Your task to perform on an android device: Open eBay Image 0: 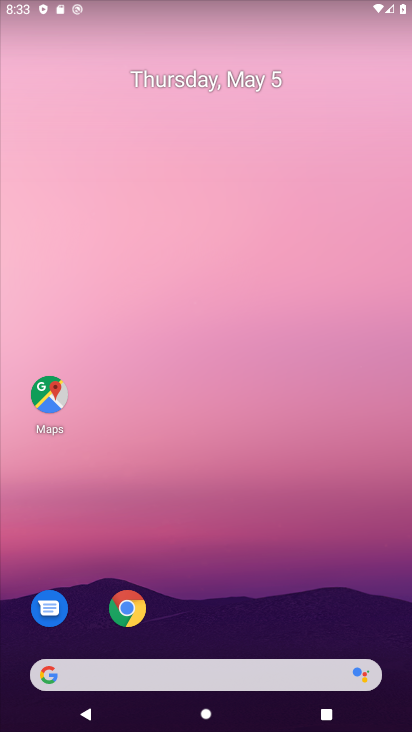
Step 0: drag from (334, 673) to (323, 20)
Your task to perform on an android device: Open eBay Image 1: 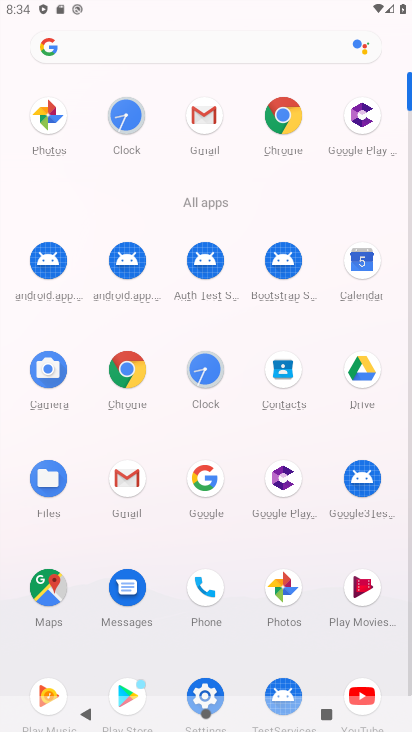
Step 1: click (128, 373)
Your task to perform on an android device: Open eBay Image 2: 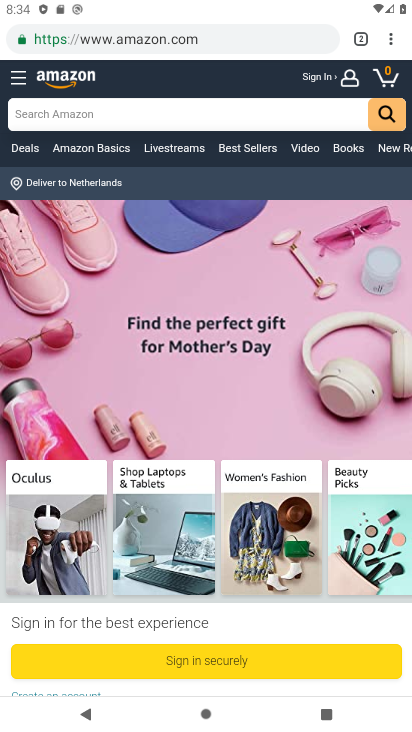
Step 2: click (311, 32)
Your task to perform on an android device: Open eBay Image 3: 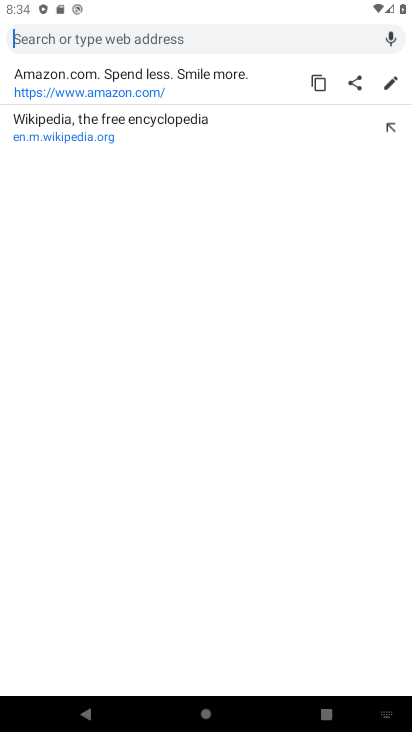
Step 3: type "ebay"
Your task to perform on an android device: Open eBay Image 4: 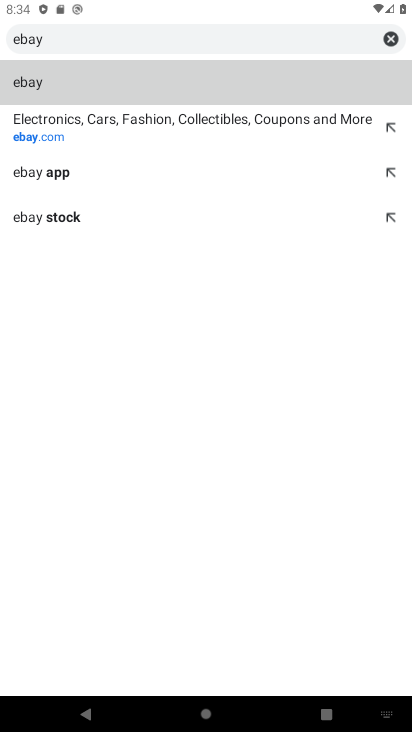
Step 4: click (177, 125)
Your task to perform on an android device: Open eBay Image 5: 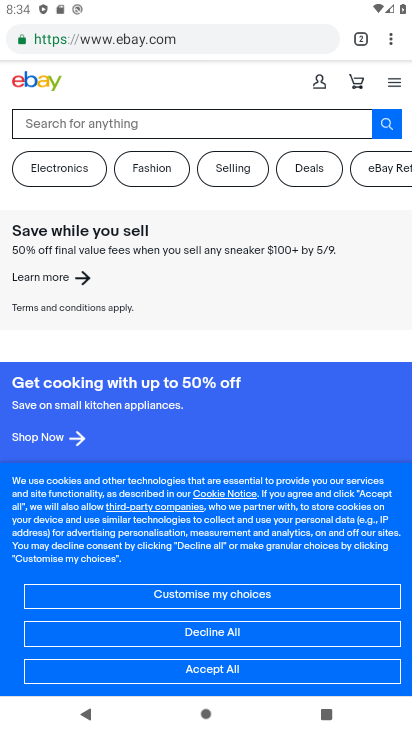
Step 5: task complete